Your task to perform on an android device: Search for beats solo 3 on amazon.com, select the first entry, and add it to the cart. Image 0: 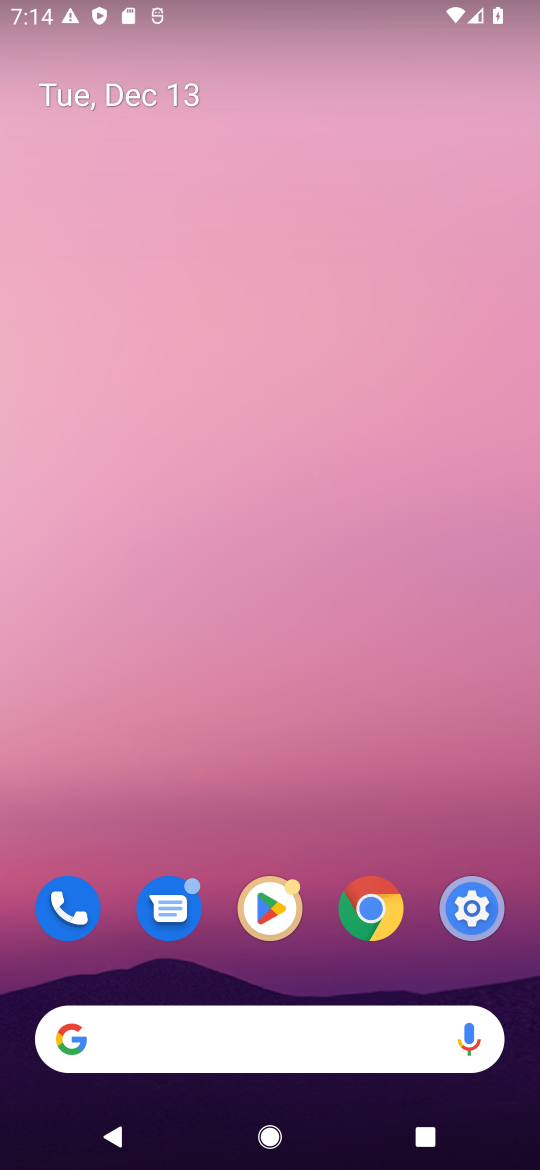
Step 0: press home button
Your task to perform on an android device: Search for beats solo 3 on amazon.com, select the first entry, and add it to the cart. Image 1: 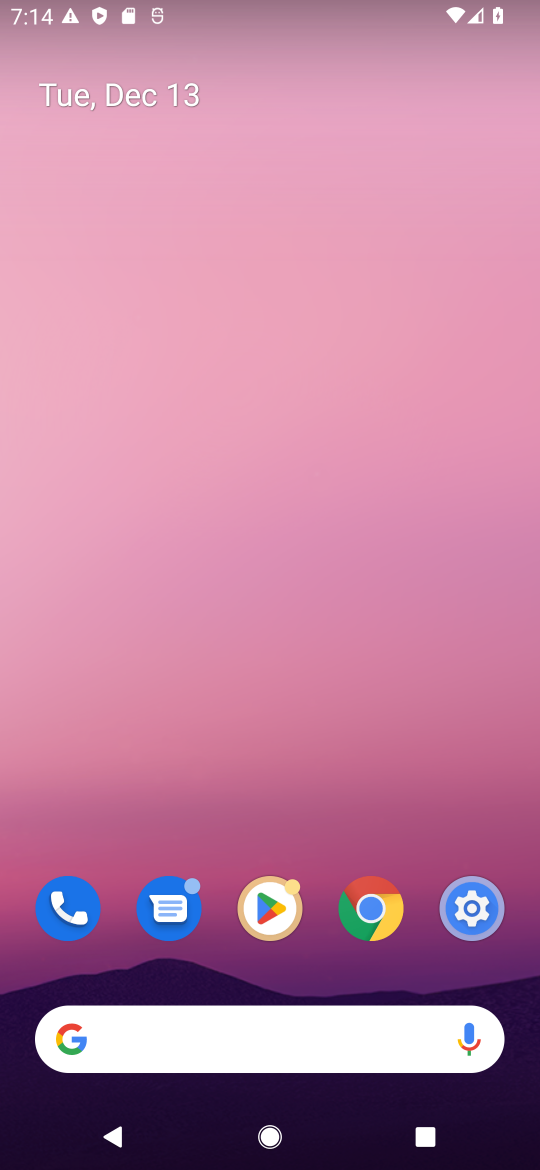
Step 1: click (105, 1042)
Your task to perform on an android device: Search for beats solo 3 on amazon.com, select the first entry, and add it to the cart. Image 2: 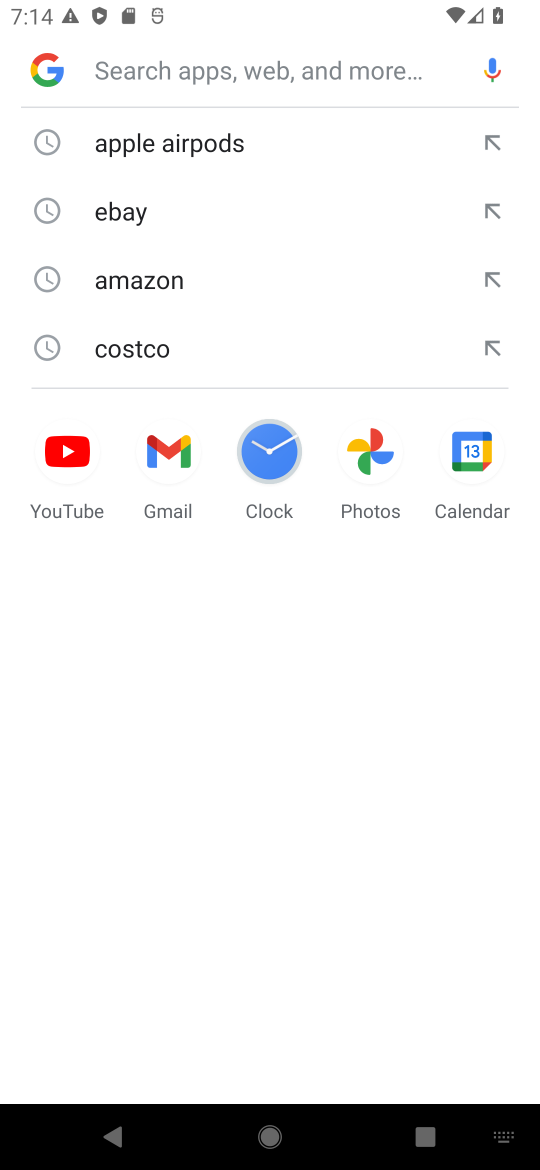
Step 2: type "amazon.com"
Your task to perform on an android device: Search for beats solo 3 on amazon.com, select the first entry, and add it to the cart. Image 3: 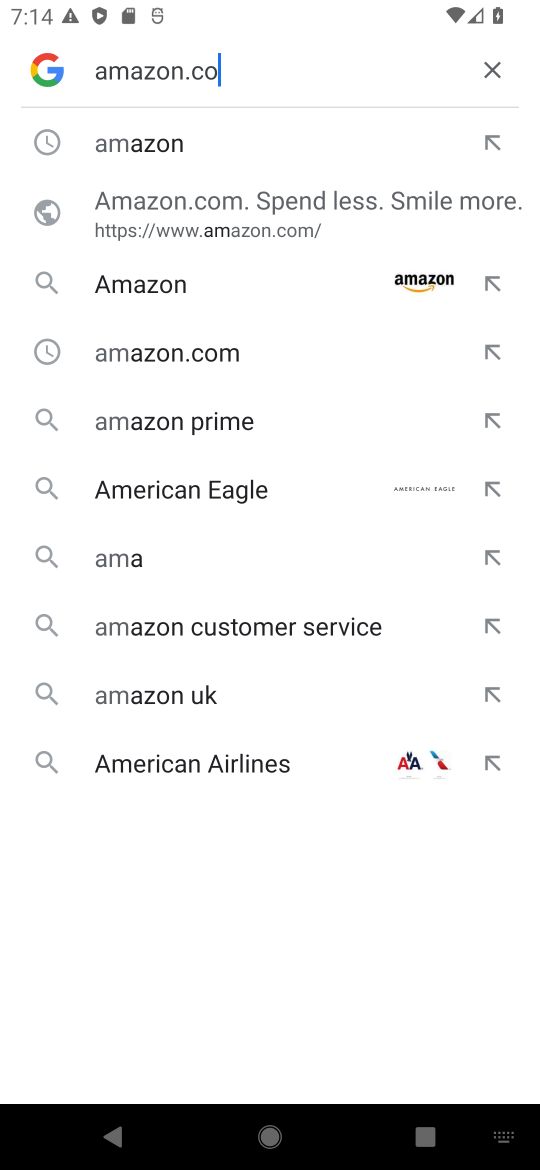
Step 3: press enter
Your task to perform on an android device: Search for beats solo 3 on amazon.com, select the first entry, and add it to the cart. Image 4: 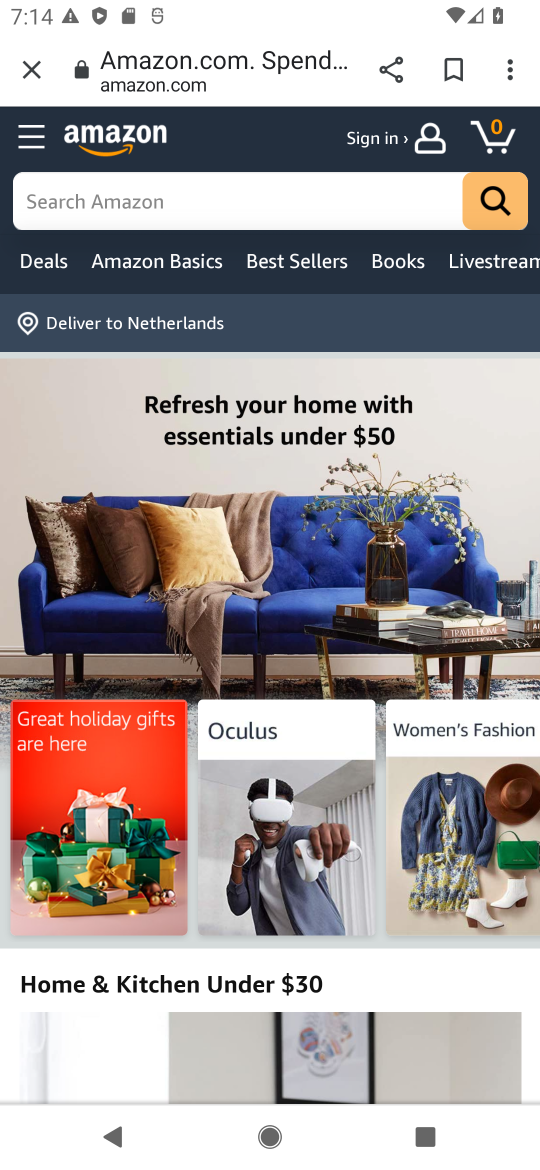
Step 4: click (168, 194)
Your task to perform on an android device: Search for beats solo 3 on amazon.com, select the first entry, and add it to the cart. Image 5: 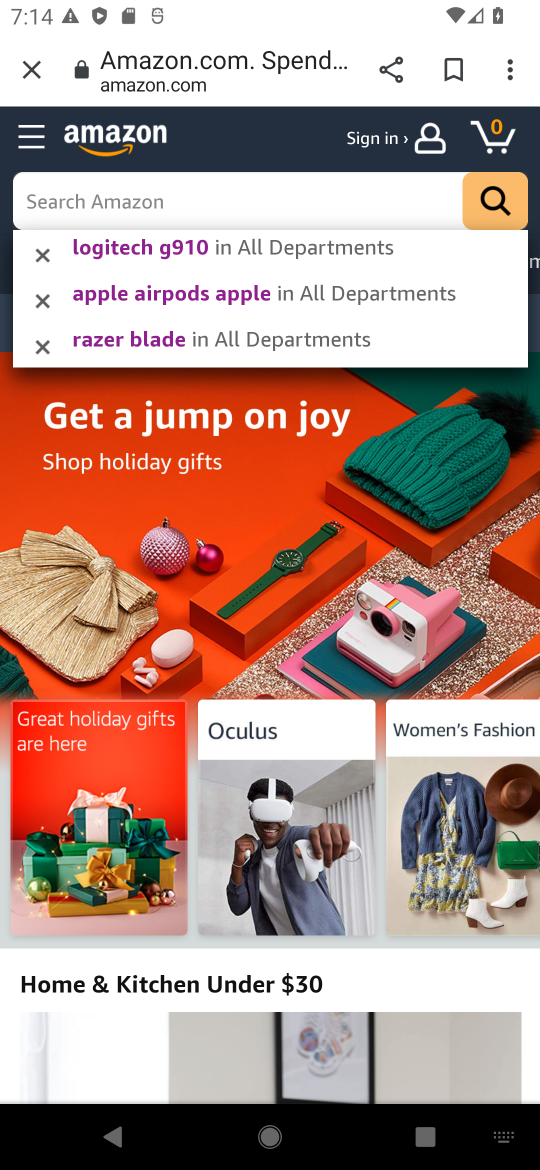
Step 5: type "beats solo 3"
Your task to perform on an android device: Search for beats solo 3 on amazon.com, select the first entry, and add it to the cart. Image 6: 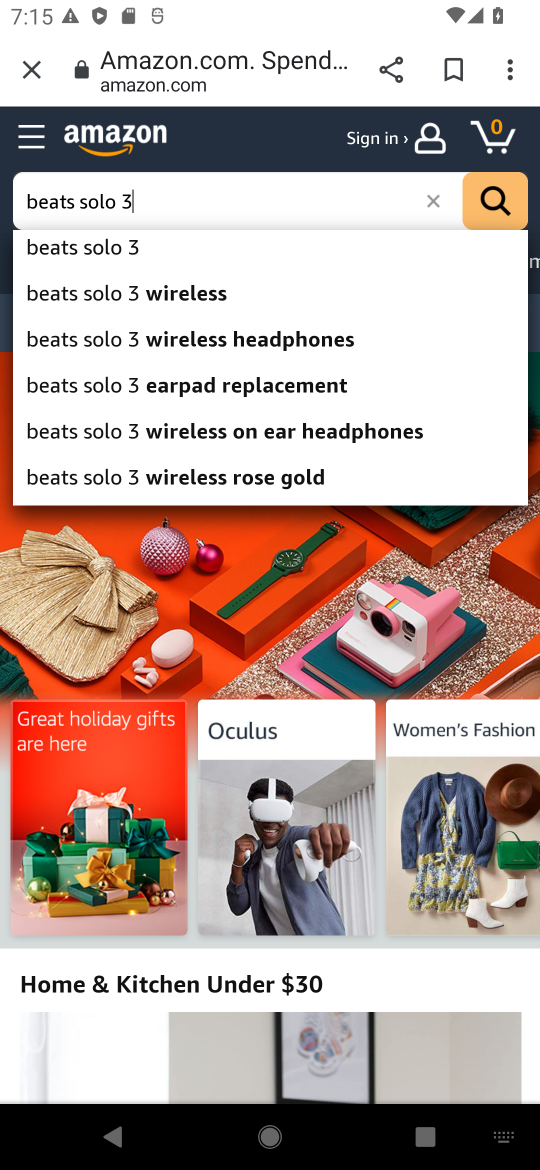
Step 6: click (496, 184)
Your task to perform on an android device: Search for beats solo 3 on amazon.com, select the first entry, and add it to the cart. Image 7: 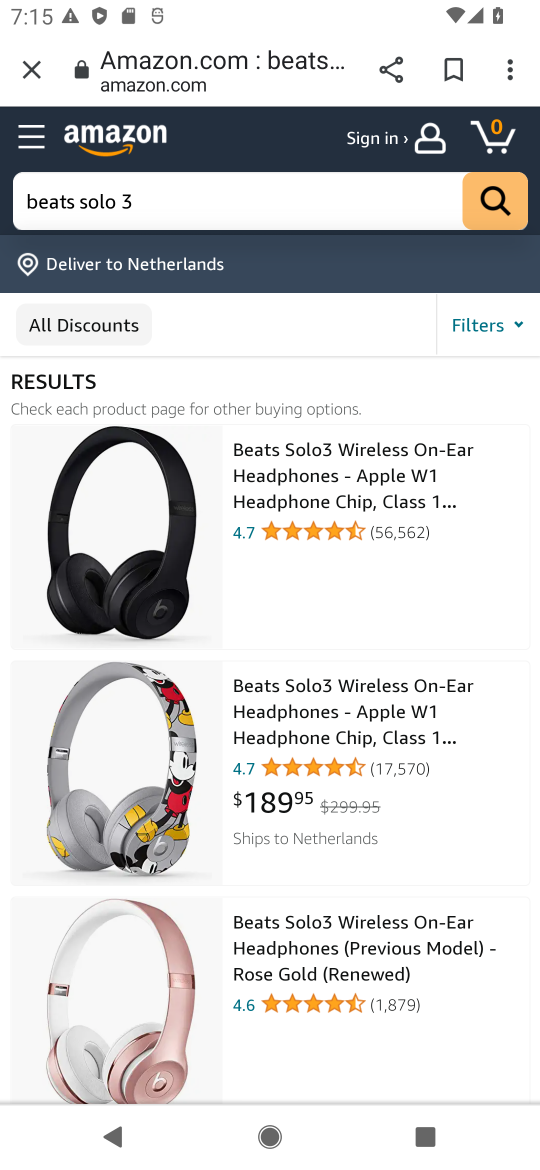
Step 7: click (301, 453)
Your task to perform on an android device: Search for beats solo 3 on amazon.com, select the first entry, and add it to the cart. Image 8: 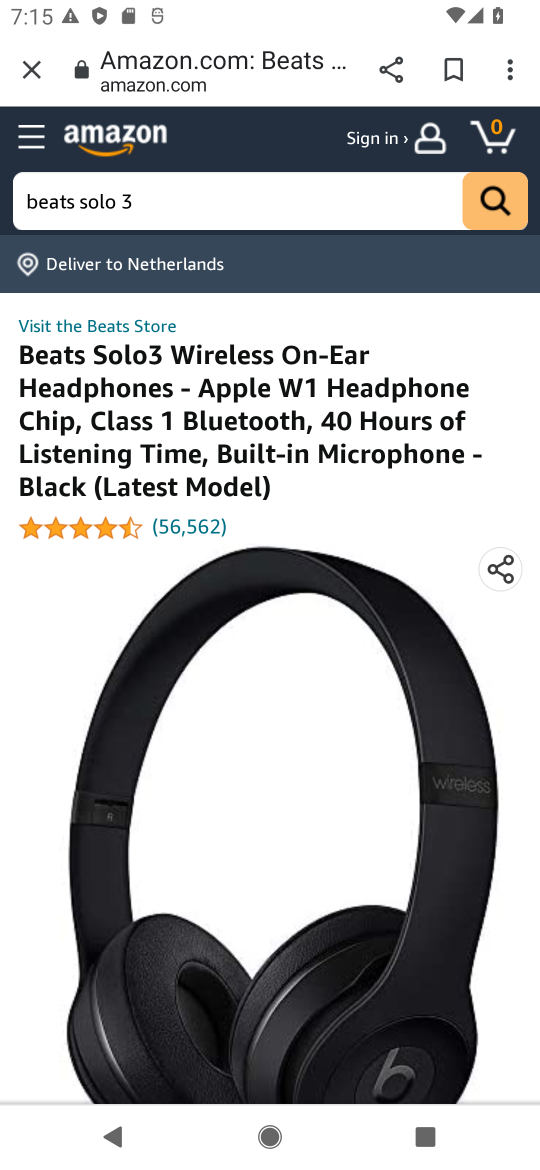
Step 8: task complete